Your task to perform on an android device: find snoozed emails in the gmail app Image 0: 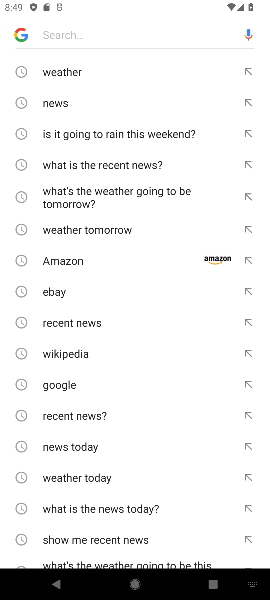
Step 0: press home button
Your task to perform on an android device: find snoozed emails in the gmail app Image 1: 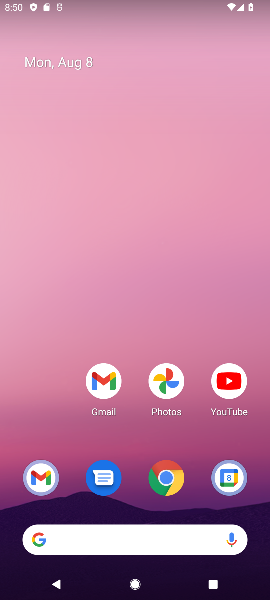
Step 1: click (112, 380)
Your task to perform on an android device: find snoozed emails in the gmail app Image 2: 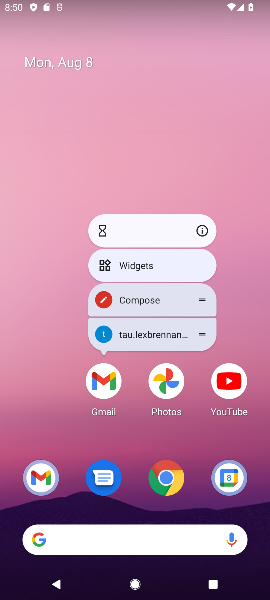
Step 2: click (112, 380)
Your task to perform on an android device: find snoozed emails in the gmail app Image 3: 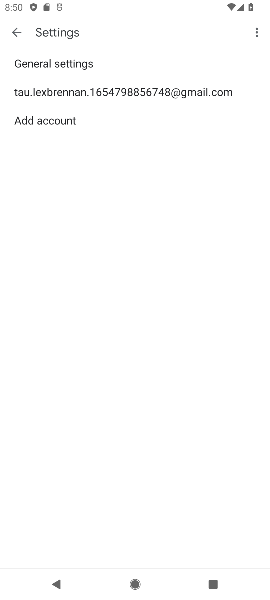
Step 3: click (19, 31)
Your task to perform on an android device: find snoozed emails in the gmail app Image 4: 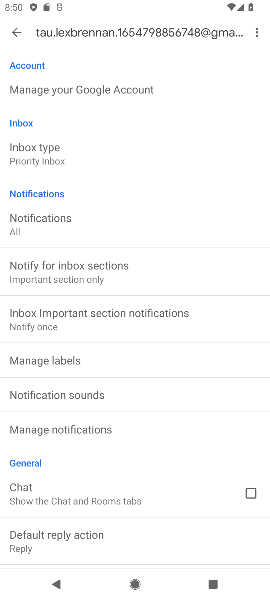
Step 4: click (12, 35)
Your task to perform on an android device: find snoozed emails in the gmail app Image 5: 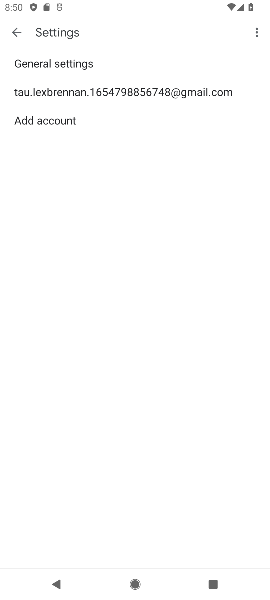
Step 5: click (12, 35)
Your task to perform on an android device: find snoozed emails in the gmail app Image 6: 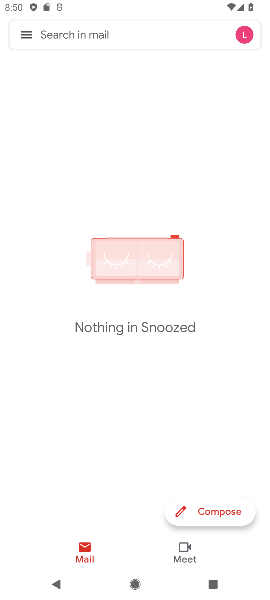
Step 6: click (25, 31)
Your task to perform on an android device: find snoozed emails in the gmail app Image 7: 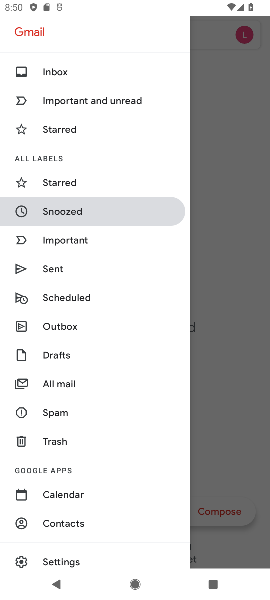
Step 7: click (59, 212)
Your task to perform on an android device: find snoozed emails in the gmail app Image 8: 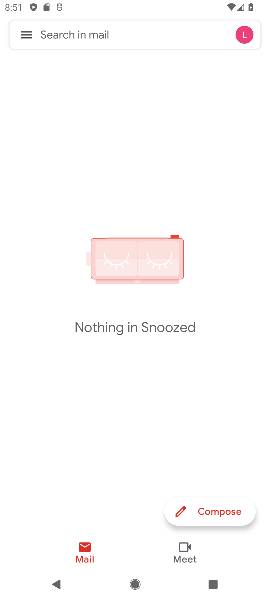
Step 8: task complete